Your task to perform on an android device: turn on priority inbox in the gmail app Image 0: 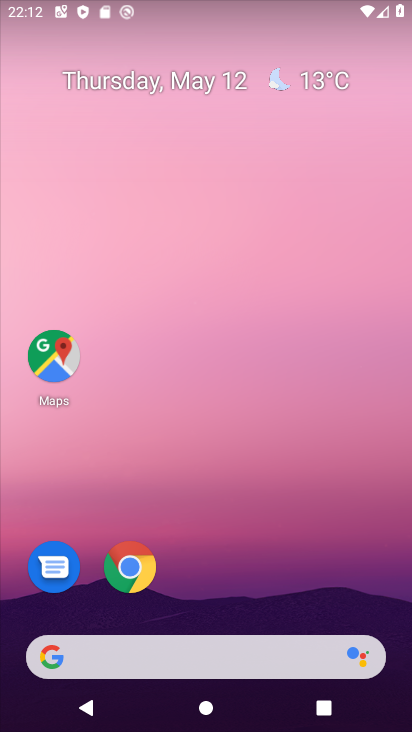
Step 0: drag from (226, 591) to (247, 66)
Your task to perform on an android device: turn on priority inbox in the gmail app Image 1: 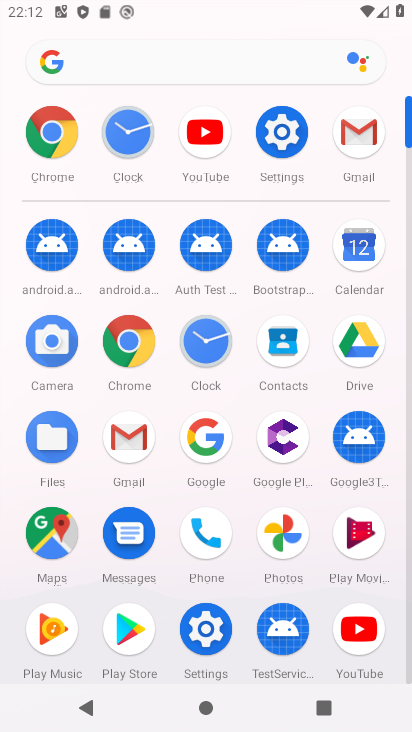
Step 1: click (352, 127)
Your task to perform on an android device: turn on priority inbox in the gmail app Image 2: 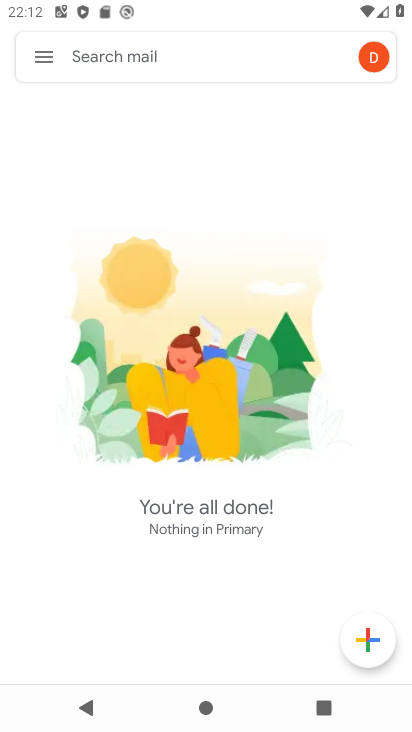
Step 2: click (39, 59)
Your task to perform on an android device: turn on priority inbox in the gmail app Image 3: 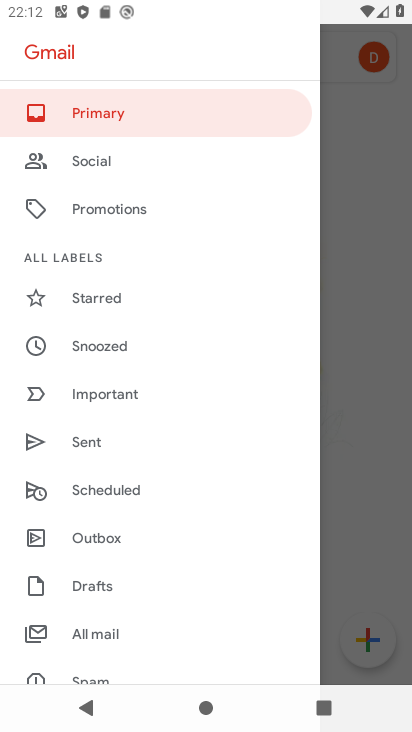
Step 3: drag from (126, 644) to (126, 128)
Your task to perform on an android device: turn on priority inbox in the gmail app Image 4: 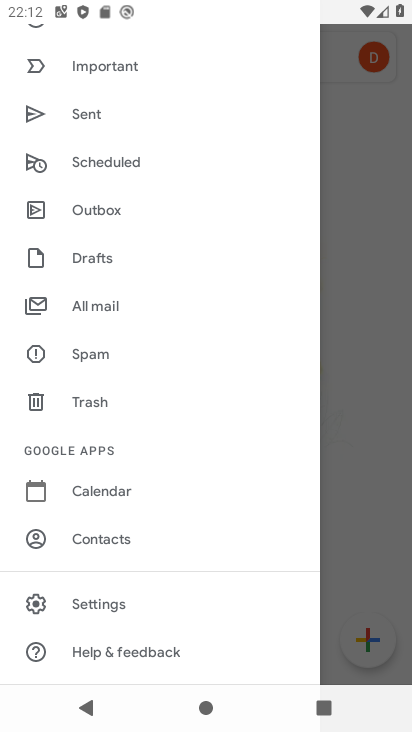
Step 4: click (137, 600)
Your task to perform on an android device: turn on priority inbox in the gmail app Image 5: 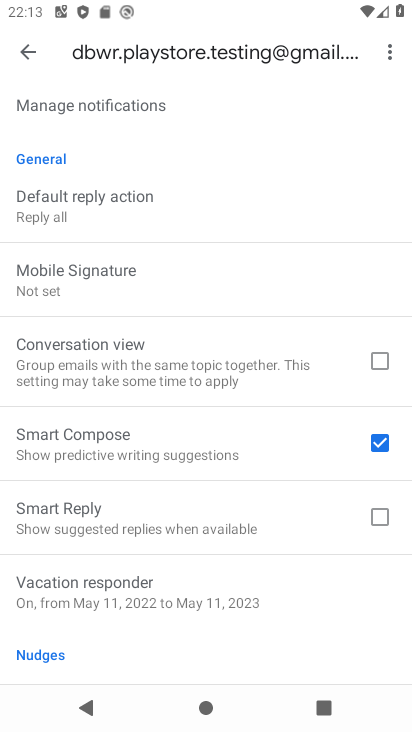
Step 5: drag from (86, 211) to (98, 684)
Your task to perform on an android device: turn on priority inbox in the gmail app Image 6: 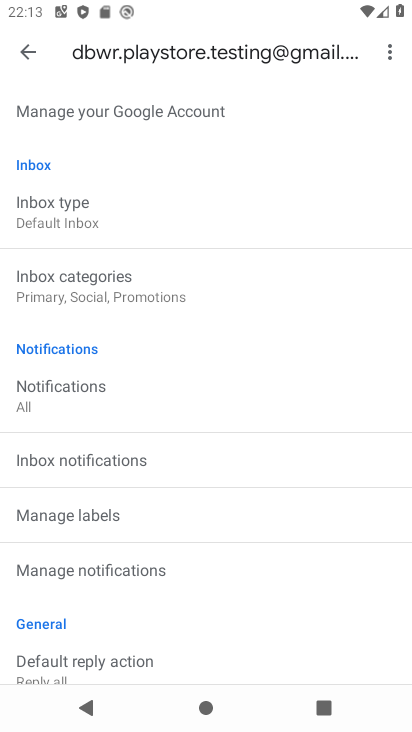
Step 6: drag from (90, 199) to (79, 649)
Your task to perform on an android device: turn on priority inbox in the gmail app Image 7: 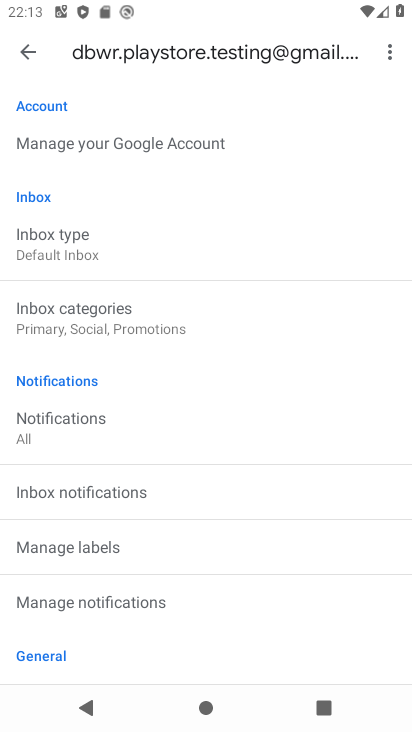
Step 7: click (108, 250)
Your task to perform on an android device: turn on priority inbox in the gmail app Image 8: 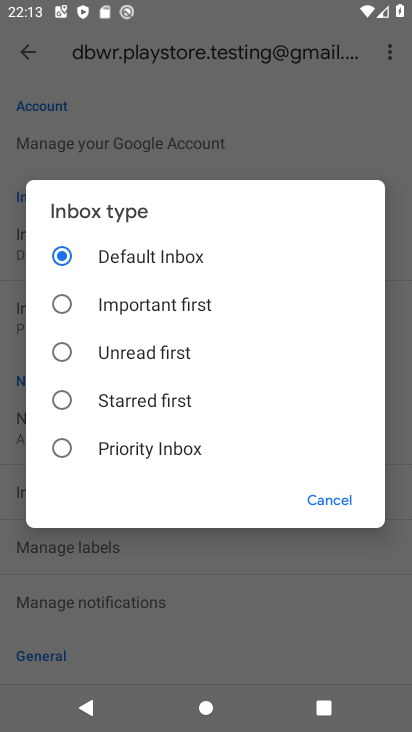
Step 8: click (64, 449)
Your task to perform on an android device: turn on priority inbox in the gmail app Image 9: 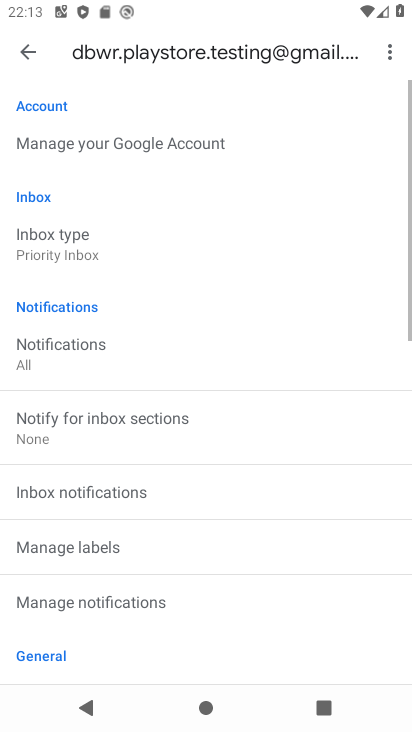
Step 9: task complete